Your task to perform on an android device: toggle sleep mode Image 0: 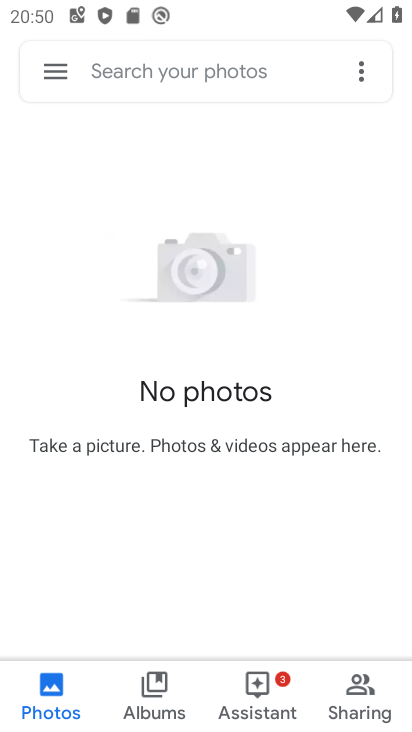
Step 0: press home button
Your task to perform on an android device: toggle sleep mode Image 1: 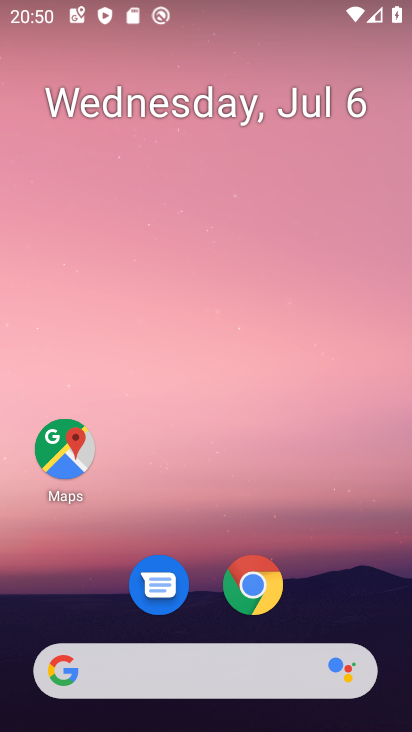
Step 1: drag from (217, 513) to (195, 10)
Your task to perform on an android device: toggle sleep mode Image 2: 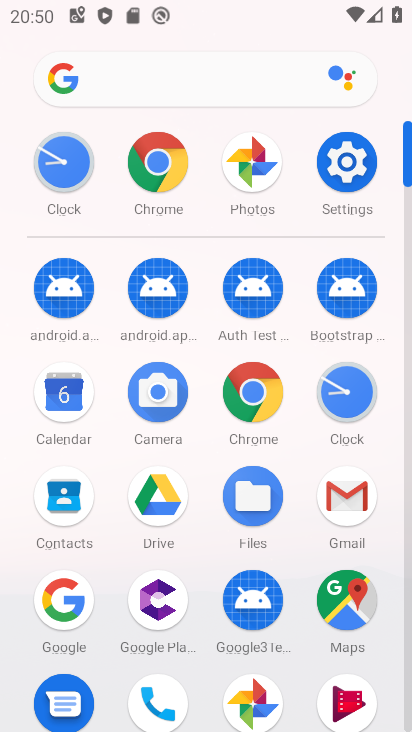
Step 2: click (356, 148)
Your task to perform on an android device: toggle sleep mode Image 3: 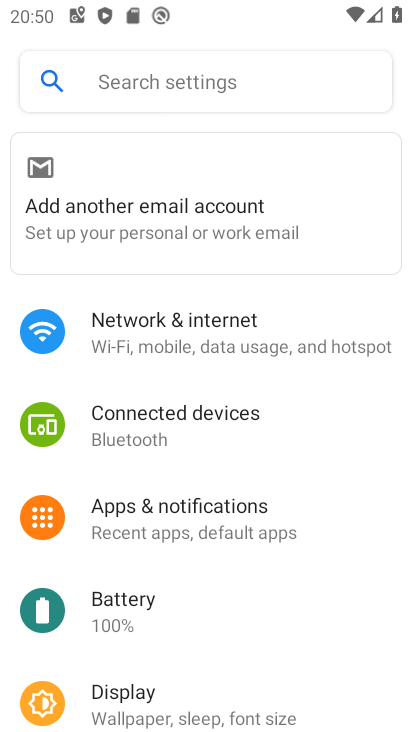
Step 3: drag from (229, 637) to (227, 517)
Your task to perform on an android device: toggle sleep mode Image 4: 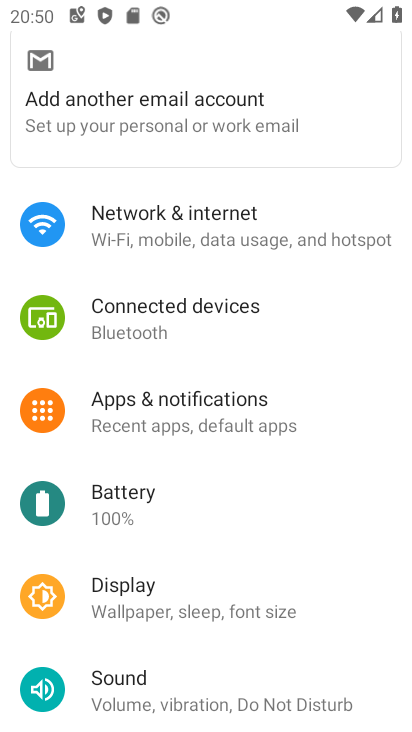
Step 4: click (237, 602)
Your task to perform on an android device: toggle sleep mode Image 5: 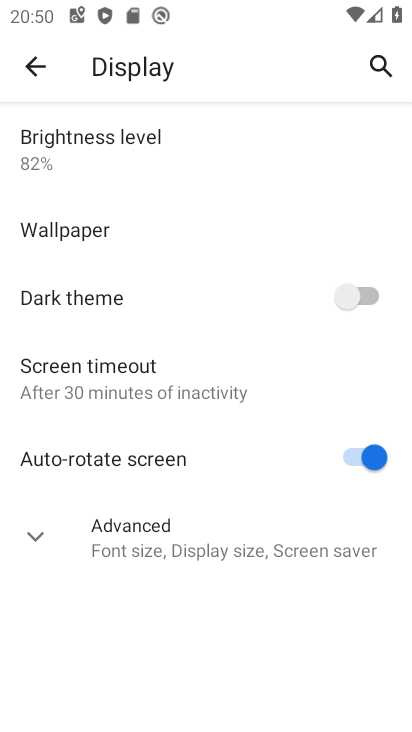
Step 5: click (27, 530)
Your task to perform on an android device: toggle sleep mode Image 6: 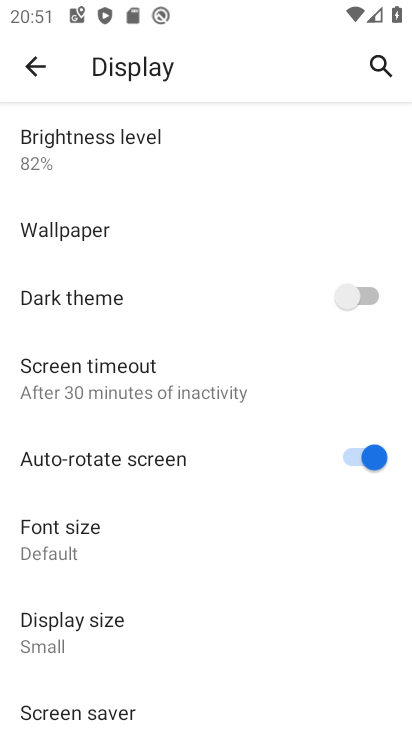
Step 6: task complete